Your task to perform on an android device: What is the recent news? Image 0: 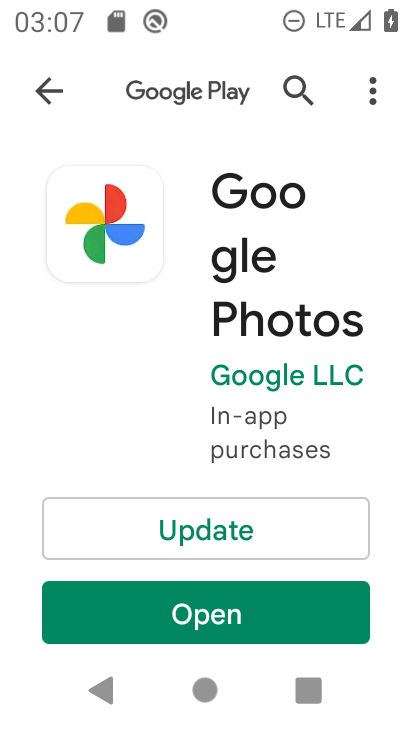
Step 0: press home button
Your task to perform on an android device: What is the recent news? Image 1: 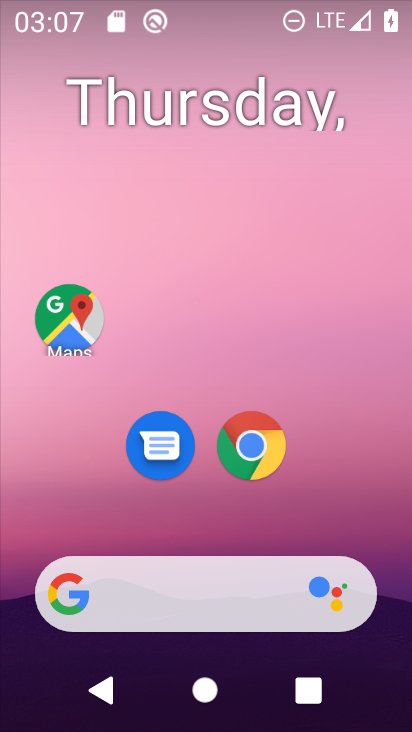
Step 1: click (141, 590)
Your task to perform on an android device: What is the recent news? Image 2: 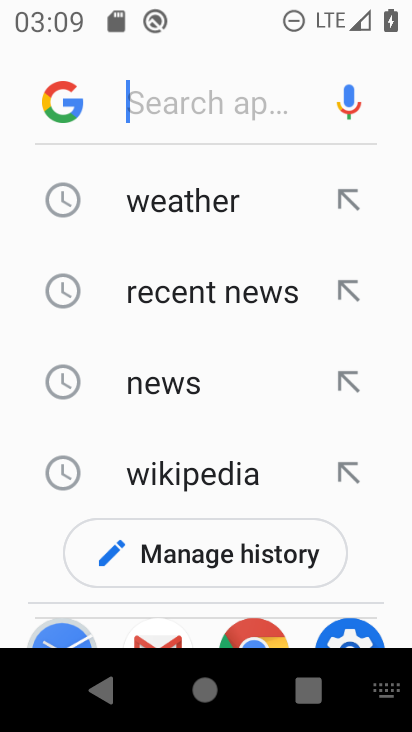
Step 2: click (176, 388)
Your task to perform on an android device: What is the recent news? Image 3: 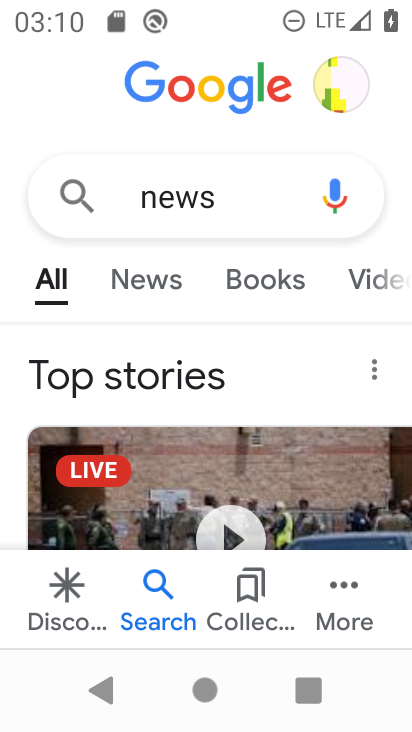
Step 3: task complete